Your task to perform on an android device: set an alarm Image 0: 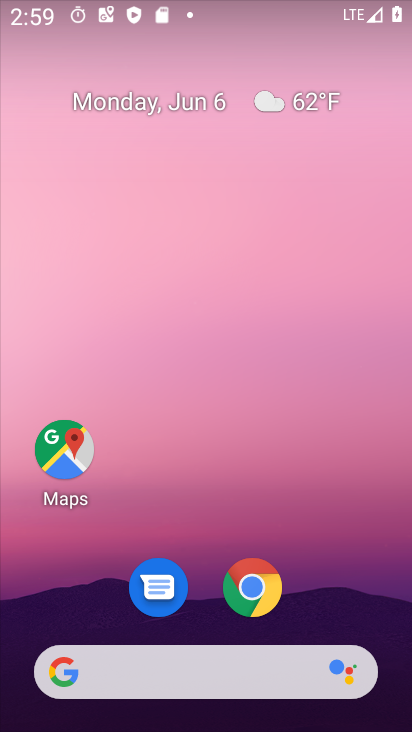
Step 0: drag from (347, 521) to (280, 25)
Your task to perform on an android device: set an alarm Image 1: 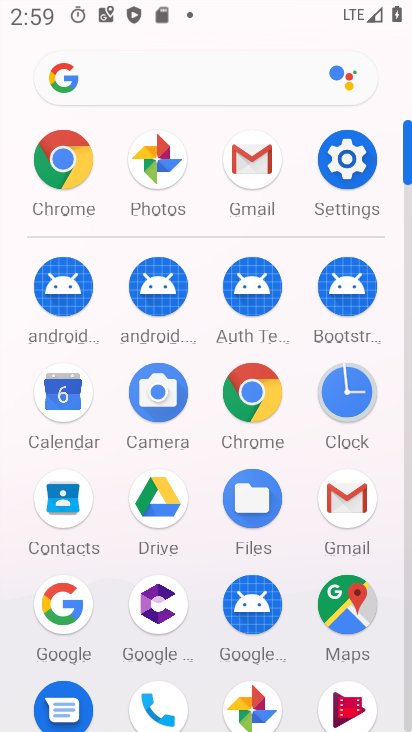
Step 1: click (345, 386)
Your task to perform on an android device: set an alarm Image 2: 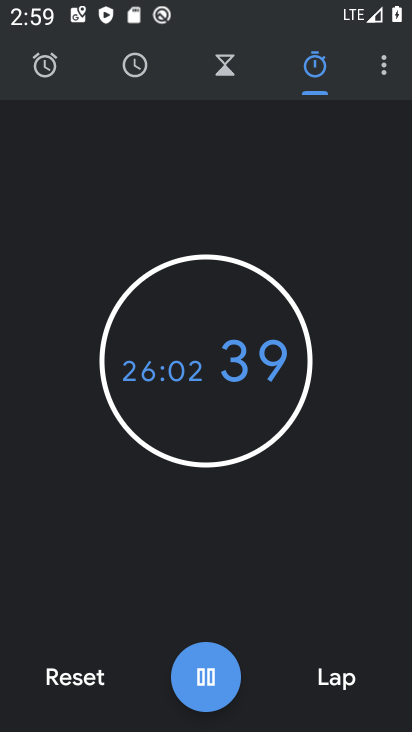
Step 2: click (54, 68)
Your task to perform on an android device: set an alarm Image 3: 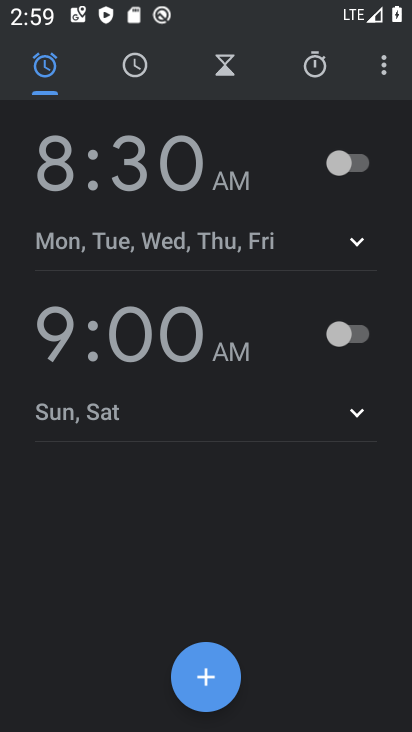
Step 3: click (216, 668)
Your task to perform on an android device: set an alarm Image 4: 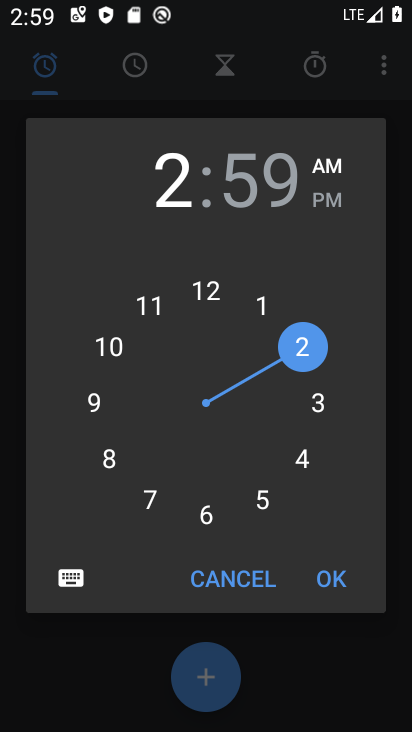
Step 4: click (321, 569)
Your task to perform on an android device: set an alarm Image 5: 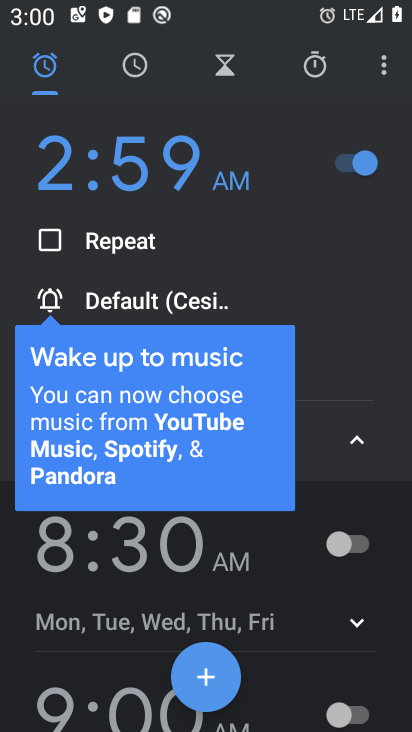
Step 5: task complete